Your task to perform on an android device: Open maps Image 0: 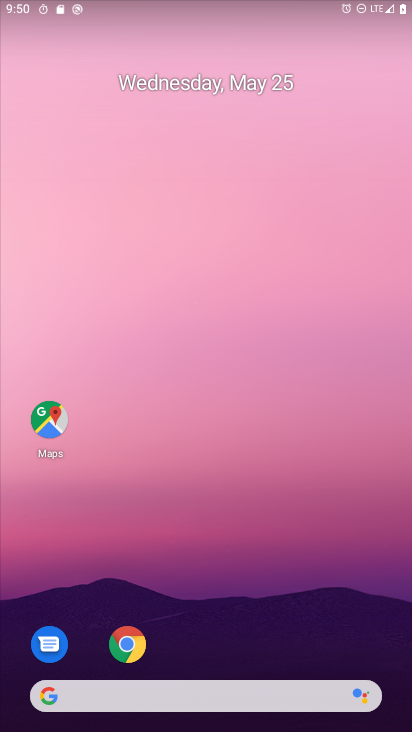
Step 0: drag from (346, 614) to (349, 54)
Your task to perform on an android device: Open maps Image 1: 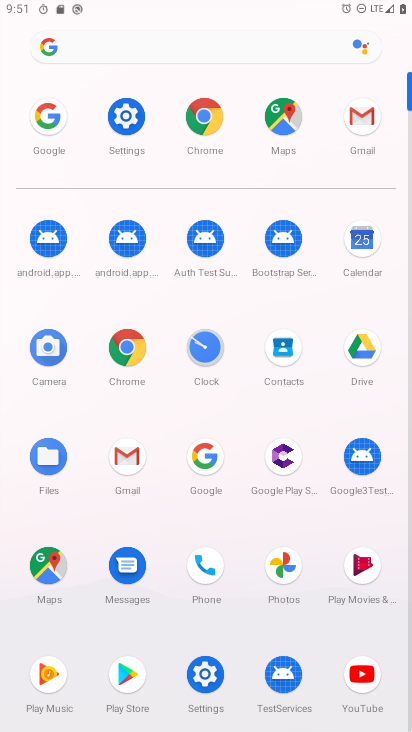
Step 1: click (44, 613)
Your task to perform on an android device: Open maps Image 2: 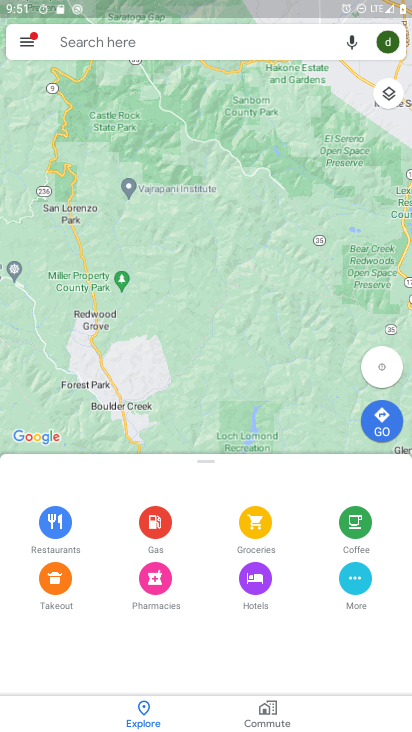
Step 2: task complete